Your task to perform on an android device: Go to battery settings Image 0: 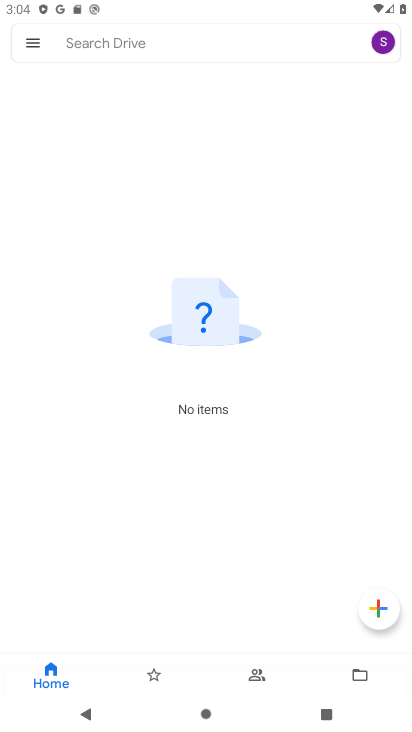
Step 0: task complete